Your task to perform on an android device: turn off sleep mode Image 0: 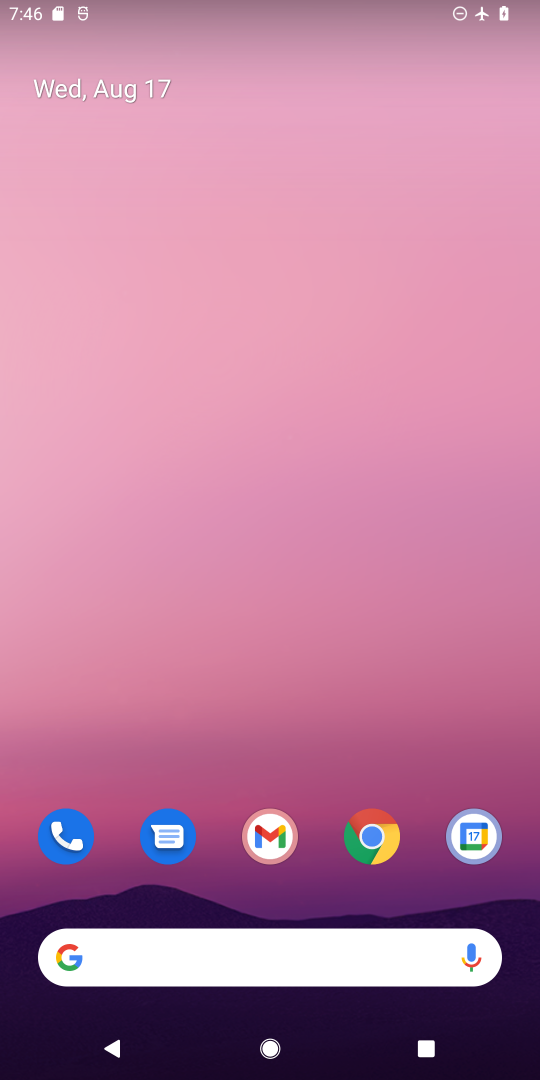
Step 0: drag from (328, 932) to (324, 344)
Your task to perform on an android device: turn off sleep mode Image 1: 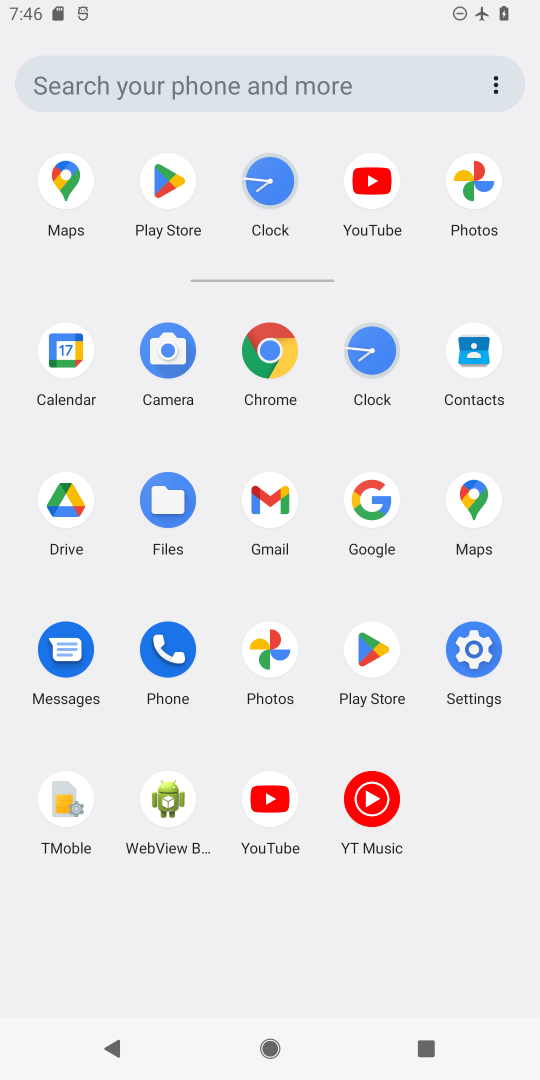
Step 1: click (457, 634)
Your task to perform on an android device: turn off sleep mode Image 2: 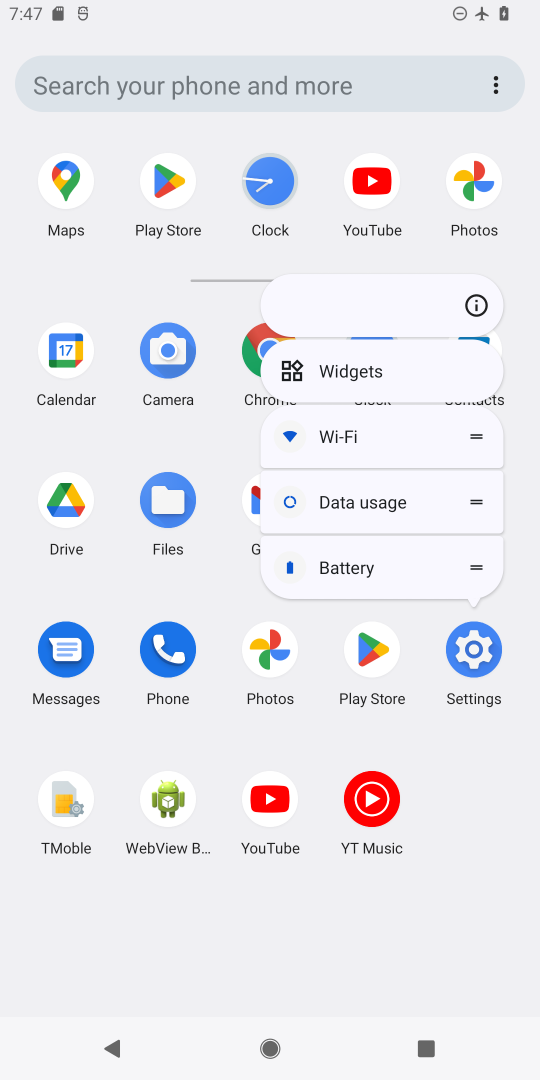
Step 2: click (476, 653)
Your task to perform on an android device: turn off sleep mode Image 3: 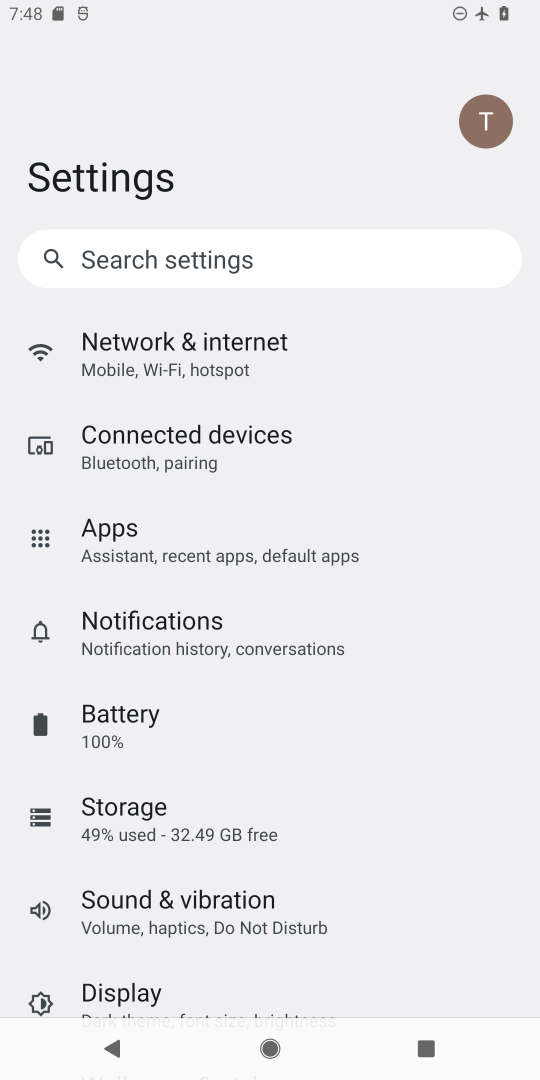
Step 3: task complete